Your task to perform on an android device: check android version Image 0: 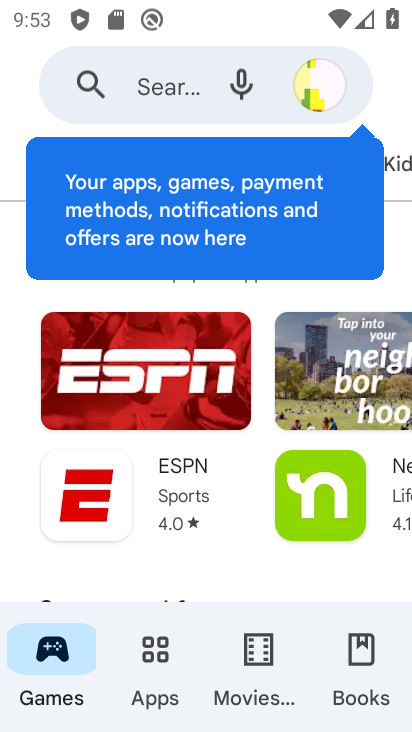
Step 0: task complete